Your task to perform on an android device: Open network settings Image 0: 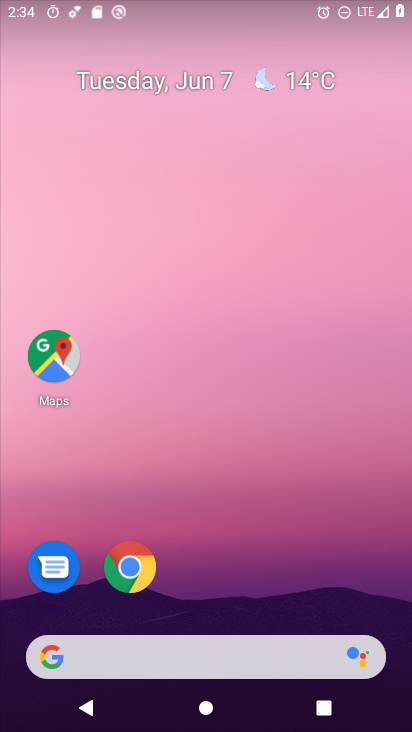
Step 0: drag from (279, 569) to (305, 26)
Your task to perform on an android device: Open network settings Image 1: 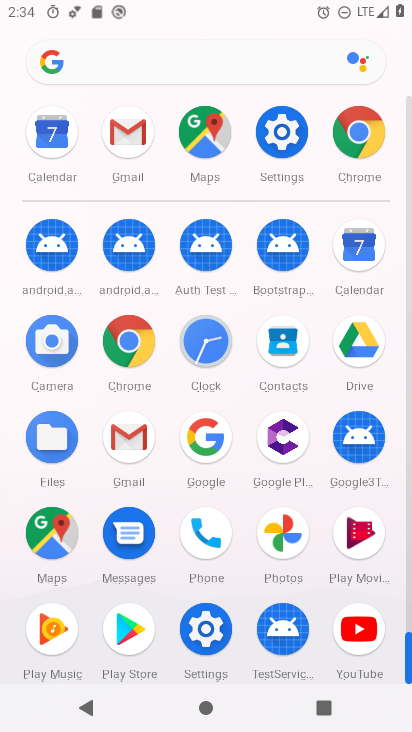
Step 1: click (271, 141)
Your task to perform on an android device: Open network settings Image 2: 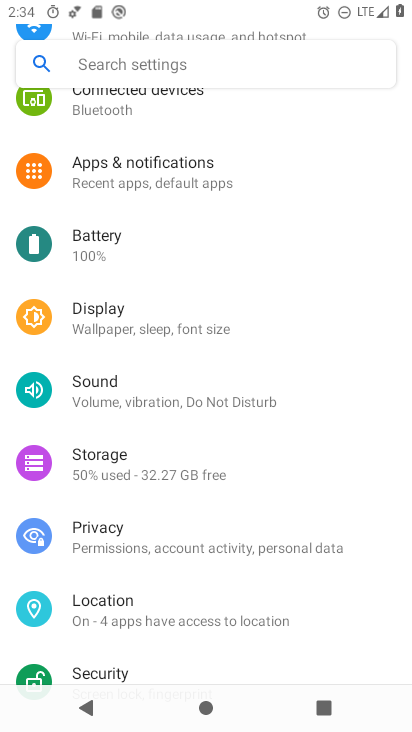
Step 2: drag from (213, 169) to (165, 554)
Your task to perform on an android device: Open network settings Image 3: 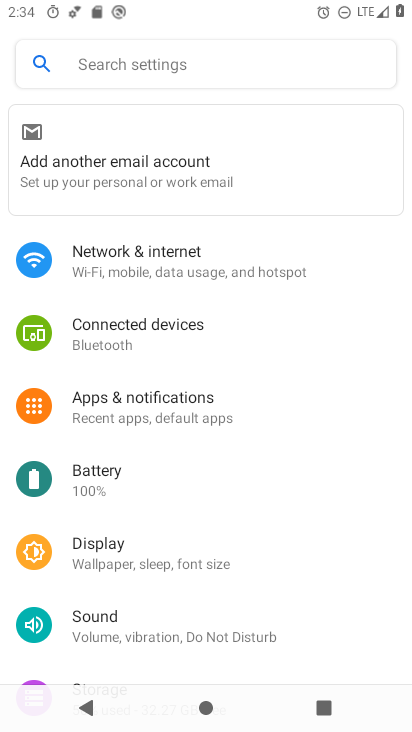
Step 3: click (103, 243)
Your task to perform on an android device: Open network settings Image 4: 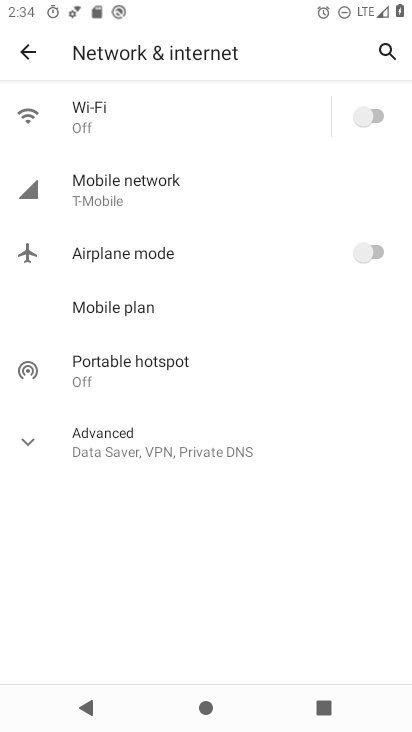
Step 4: task complete